Your task to perform on an android device: change timer sound Image 0: 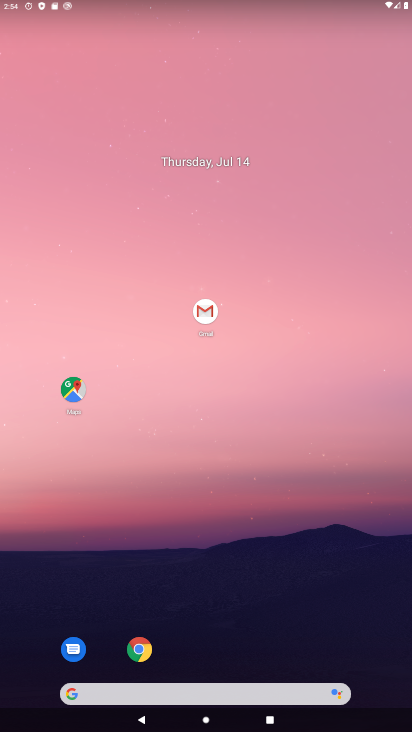
Step 0: drag from (309, 636) to (304, 213)
Your task to perform on an android device: change timer sound Image 1: 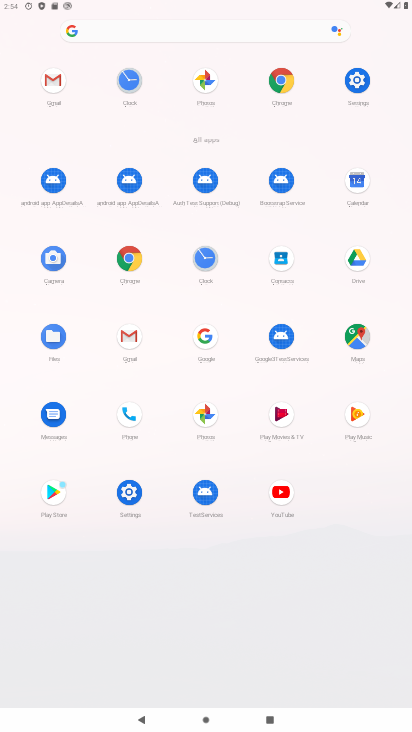
Step 1: click (211, 252)
Your task to perform on an android device: change timer sound Image 2: 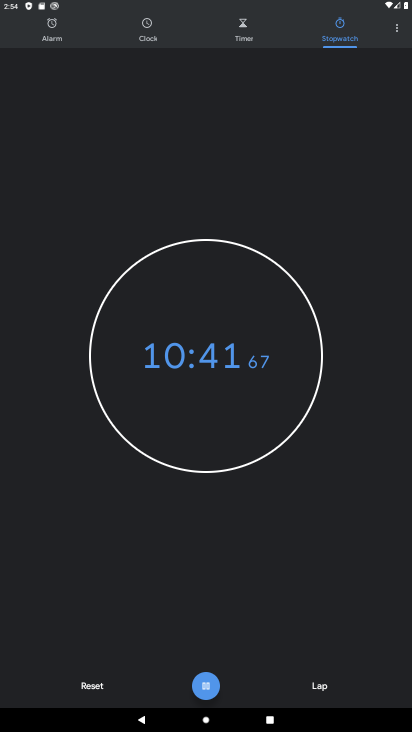
Step 2: click (399, 27)
Your task to perform on an android device: change timer sound Image 3: 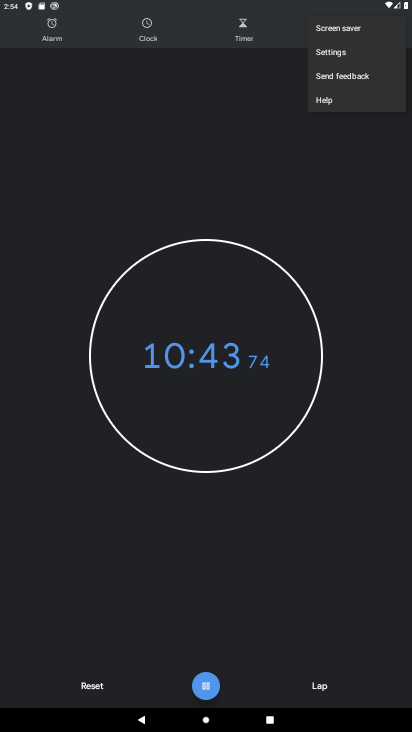
Step 3: click (350, 64)
Your task to perform on an android device: change timer sound Image 4: 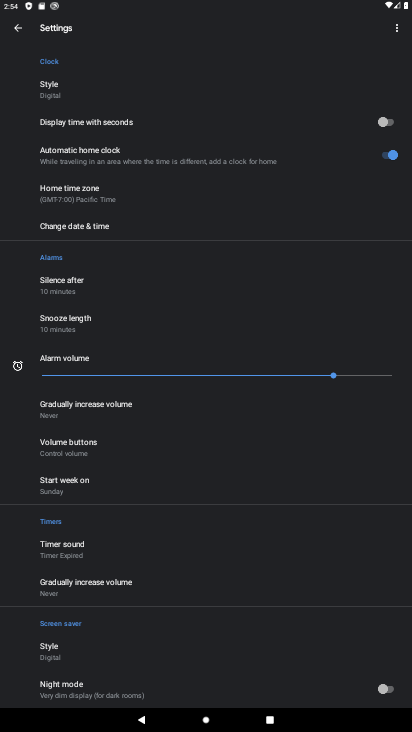
Step 4: click (132, 547)
Your task to perform on an android device: change timer sound Image 5: 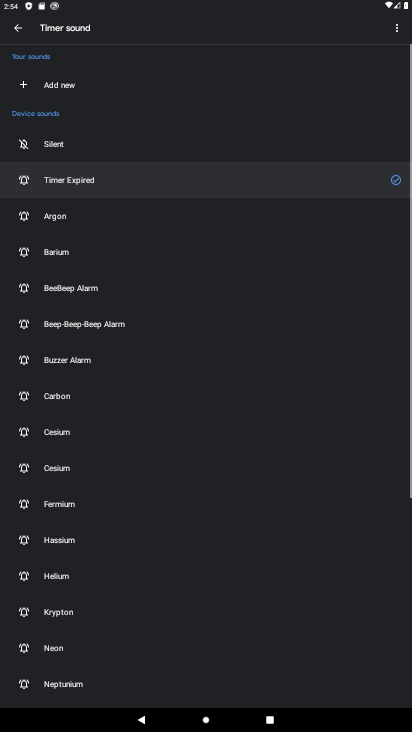
Step 5: click (112, 216)
Your task to perform on an android device: change timer sound Image 6: 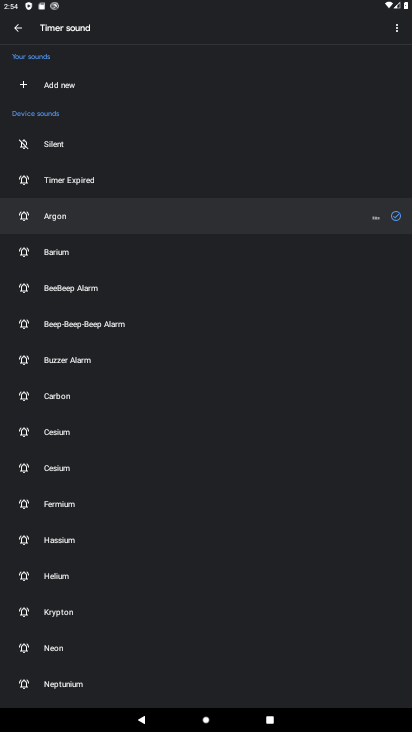
Step 6: task complete